Your task to perform on an android device: manage bookmarks in the chrome app Image 0: 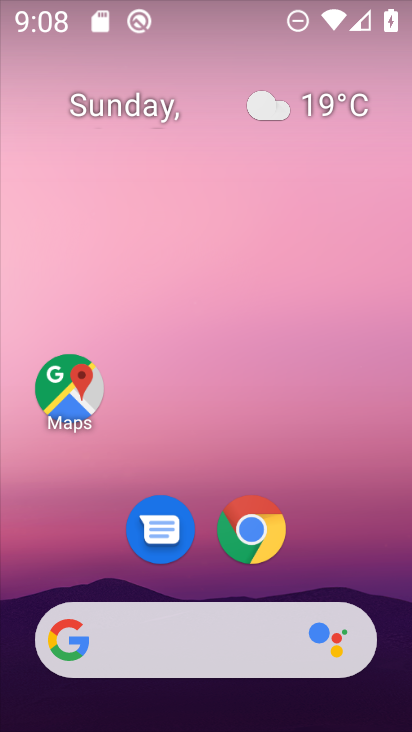
Step 0: click (251, 528)
Your task to perform on an android device: manage bookmarks in the chrome app Image 1: 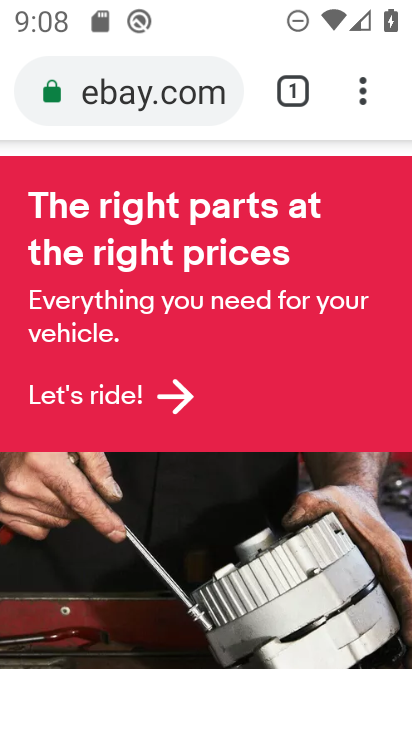
Step 1: click (361, 82)
Your task to perform on an android device: manage bookmarks in the chrome app Image 2: 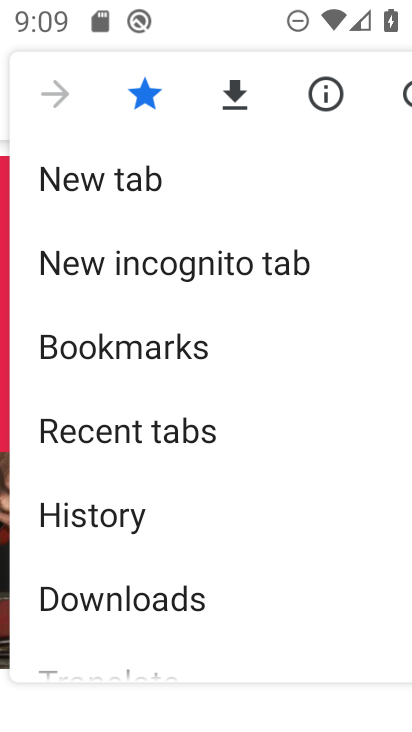
Step 2: click (228, 336)
Your task to perform on an android device: manage bookmarks in the chrome app Image 3: 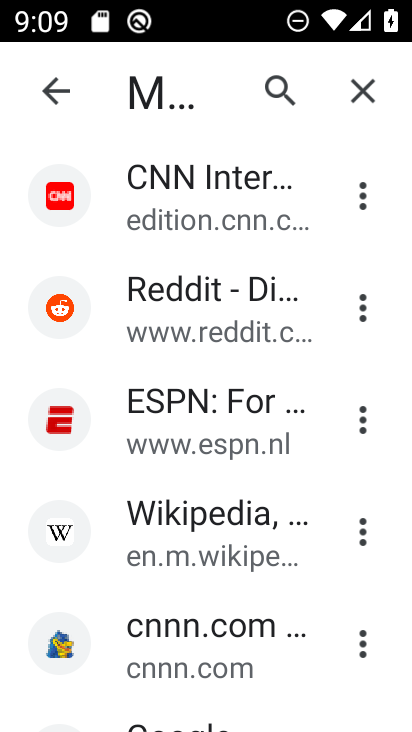
Step 3: drag from (227, 623) to (232, 354)
Your task to perform on an android device: manage bookmarks in the chrome app Image 4: 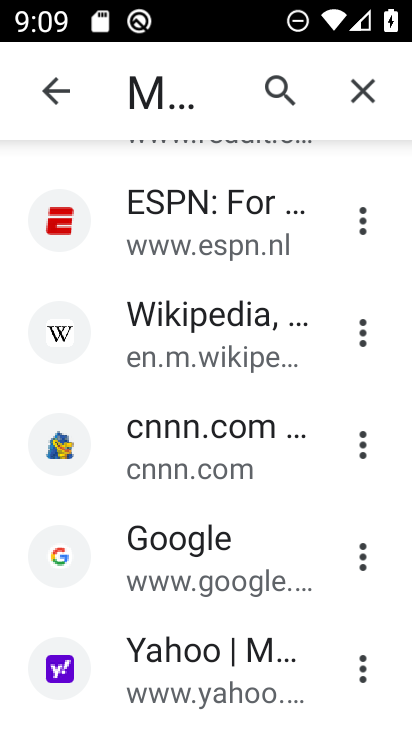
Step 4: click (242, 267)
Your task to perform on an android device: manage bookmarks in the chrome app Image 5: 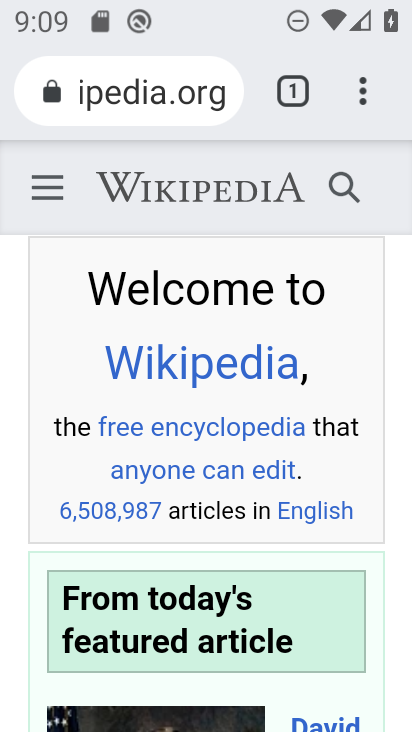
Step 5: task complete